Your task to perform on an android device: Show me popular videos on Youtube Image 0: 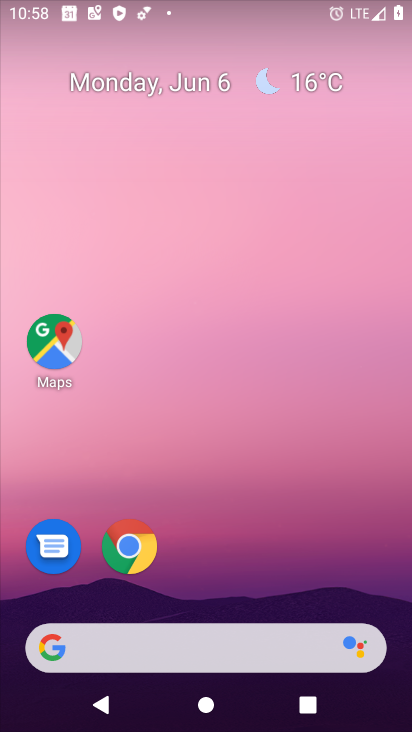
Step 0: drag from (213, 598) to (282, 101)
Your task to perform on an android device: Show me popular videos on Youtube Image 1: 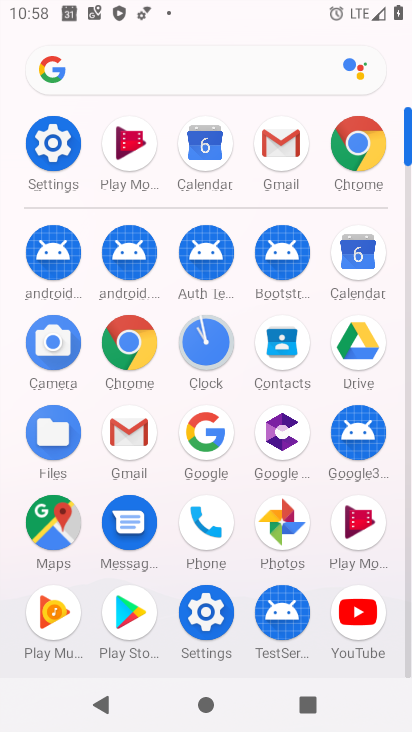
Step 1: click (345, 624)
Your task to perform on an android device: Show me popular videos on Youtube Image 2: 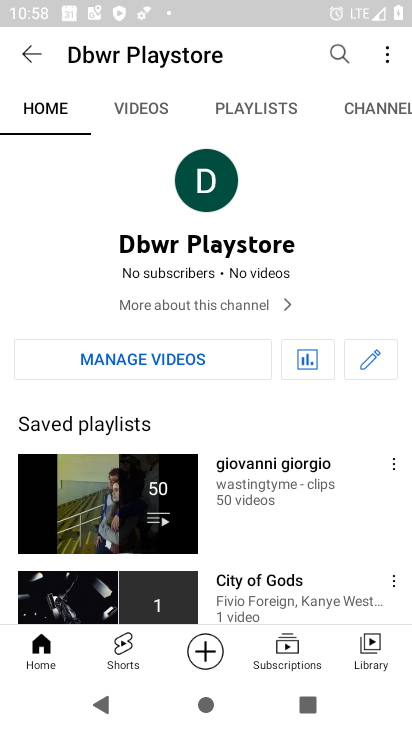
Step 2: click (31, 53)
Your task to perform on an android device: Show me popular videos on Youtube Image 3: 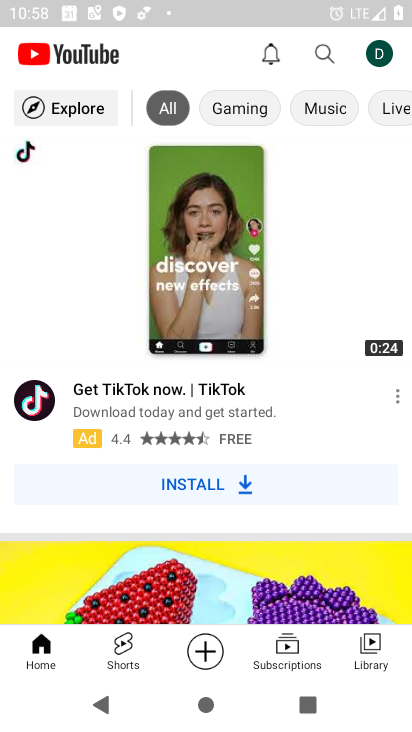
Step 3: click (68, 103)
Your task to perform on an android device: Show me popular videos on Youtube Image 4: 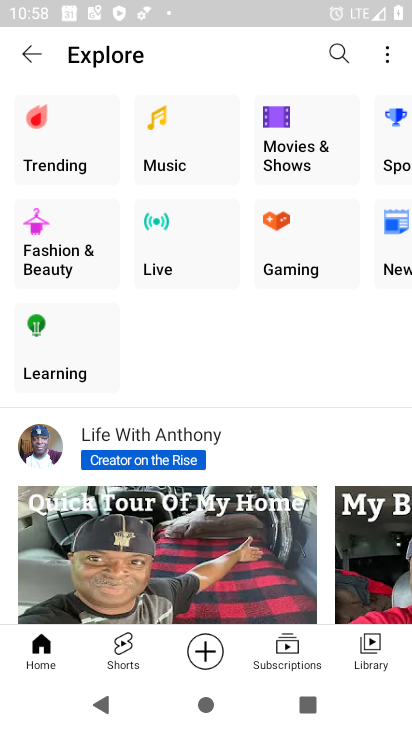
Step 4: click (69, 132)
Your task to perform on an android device: Show me popular videos on Youtube Image 5: 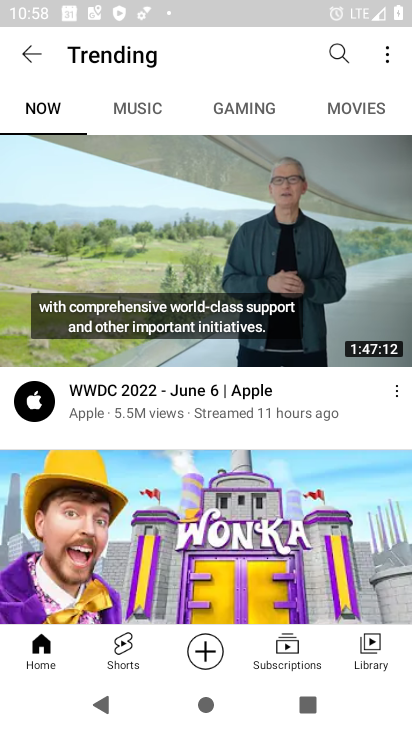
Step 5: task complete